Your task to perform on an android device: check out phone information Image 0: 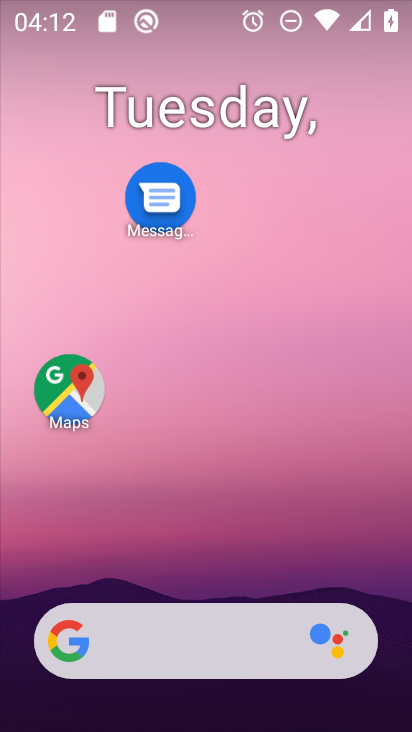
Step 0: drag from (205, 584) to (208, 229)
Your task to perform on an android device: check out phone information Image 1: 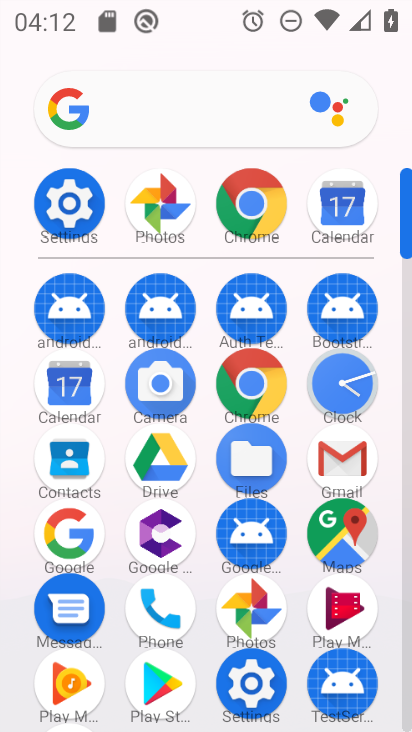
Step 1: click (84, 210)
Your task to perform on an android device: check out phone information Image 2: 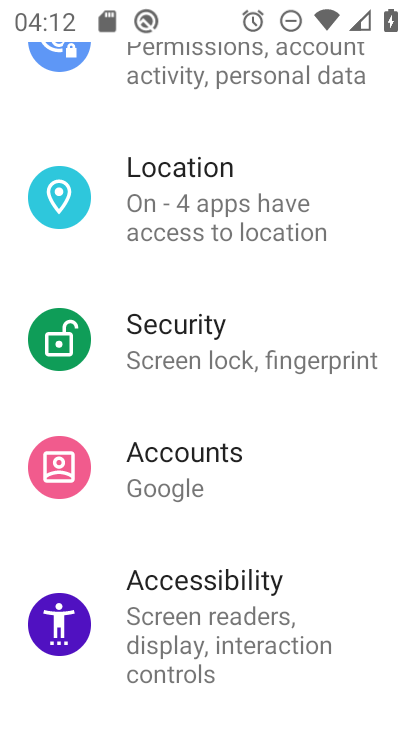
Step 2: drag from (222, 616) to (226, 295)
Your task to perform on an android device: check out phone information Image 3: 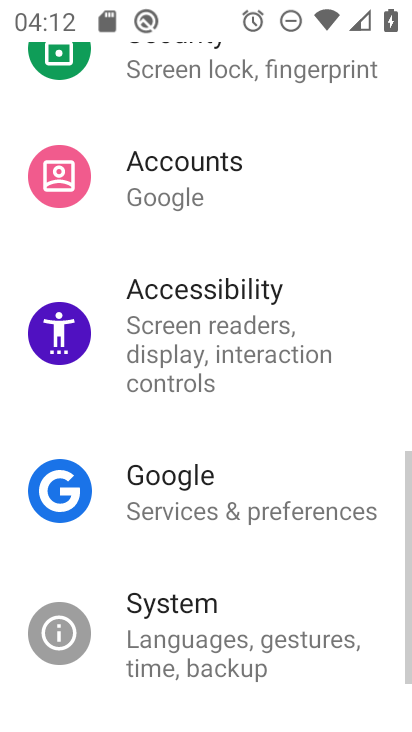
Step 3: drag from (208, 634) to (208, 372)
Your task to perform on an android device: check out phone information Image 4: 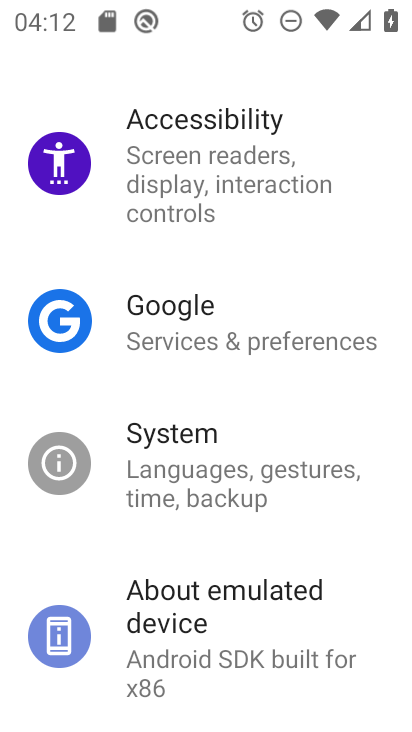
Step 4: drag from (225, 644) to (234, 403)
Your task to perform on an android device: check out phone information Image 5: 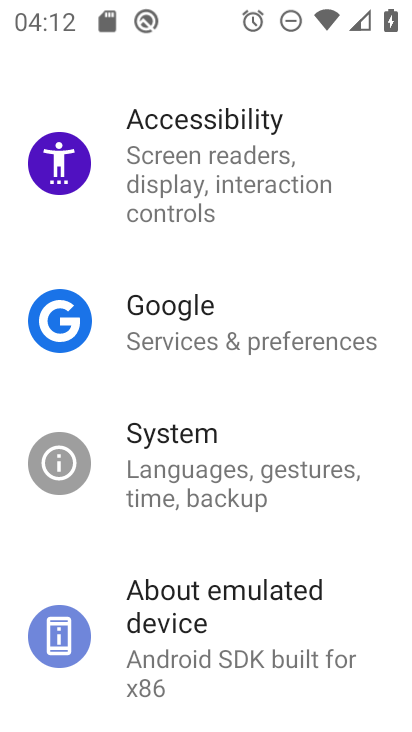
Step 5: click (197, 603)
Your task to perform on an android device: check out phone information Image 6: 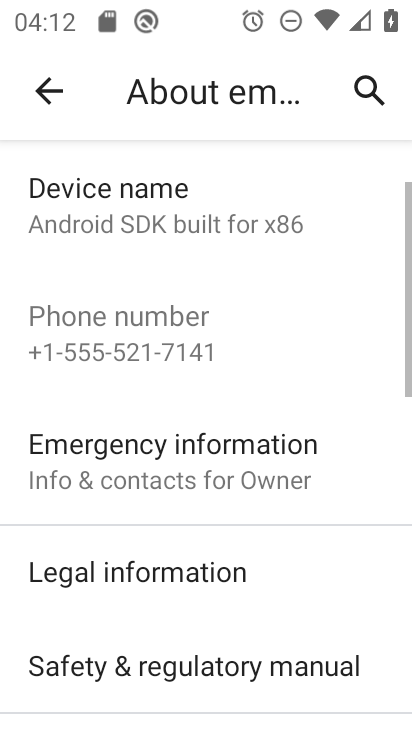
Step 6: task complete